Your task to perform on an android device: open sync settings in chrome Image 0: 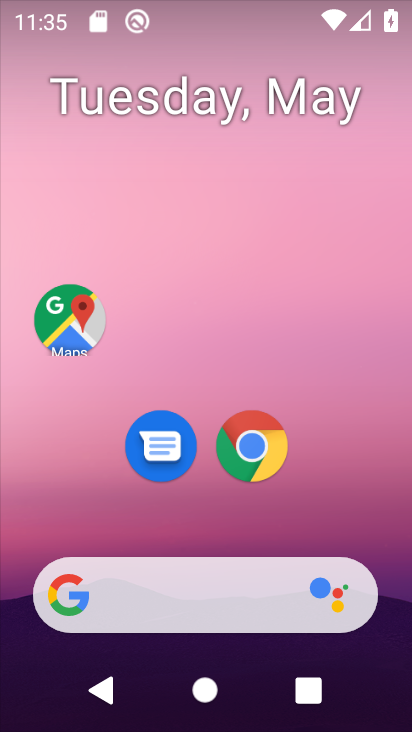
Step 0: press home button
Your task to perform on an android device: open sync settings in chrome Image 1: 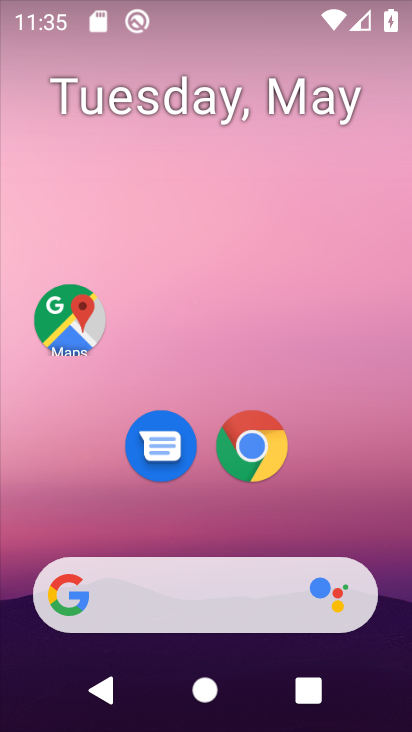
Step 1: click (246, 457)
Your task to perform on an android device: open sync settings in chrome Image 2: 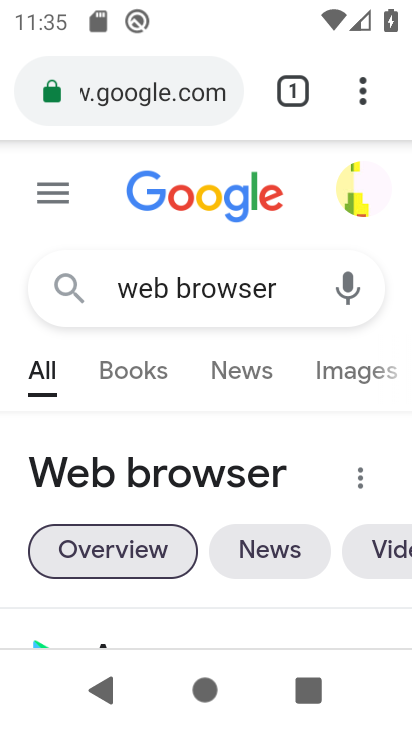
Step 2: drag from (354, 93) to (179, 469)
Your task to perform on an android device: open sync settings in chrome Image 3: 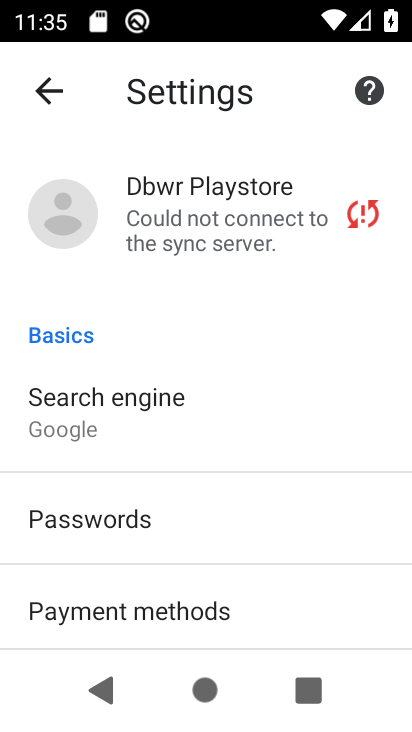
Step 3: click (203, 231)
Your task to perform on an android device: open sync settings in chrome Image 4: 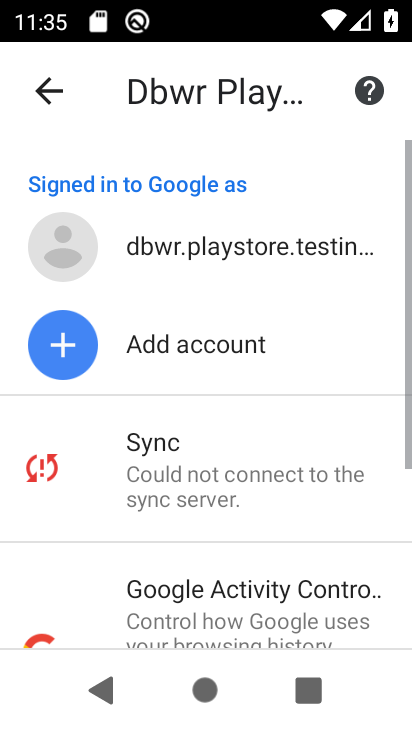
Step 4: click (109, 489)
Your task to perform on an android device: open sync settings in chrome Image 5: 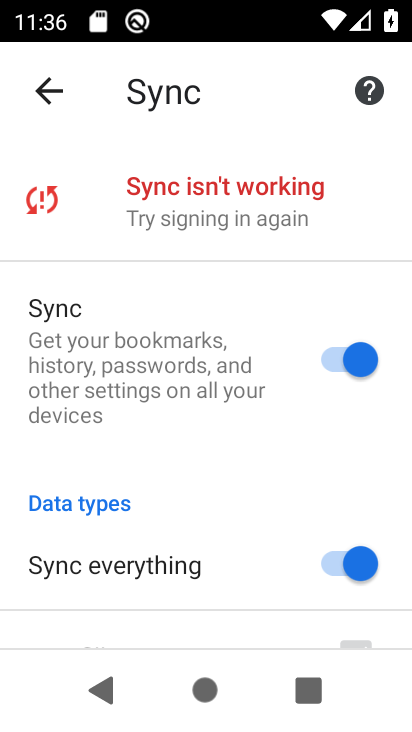
Step 5: task complete